Your task to perform on an android device: all mails in gmail Image 0: 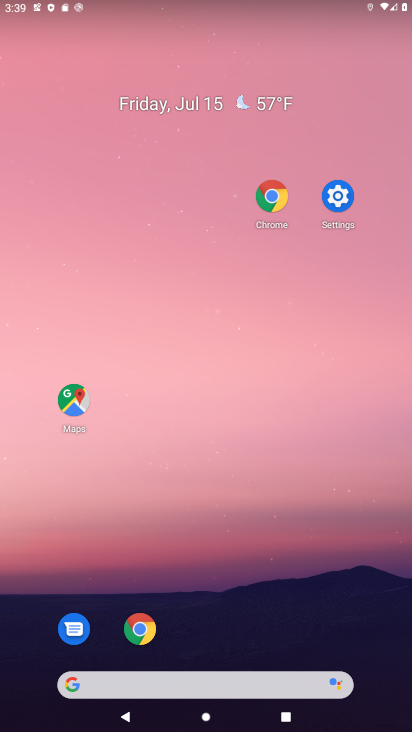
Step 0: drag from (225, 683) to (223, 200)
Your task to perform on an android device: all mails in gmail Image 1: 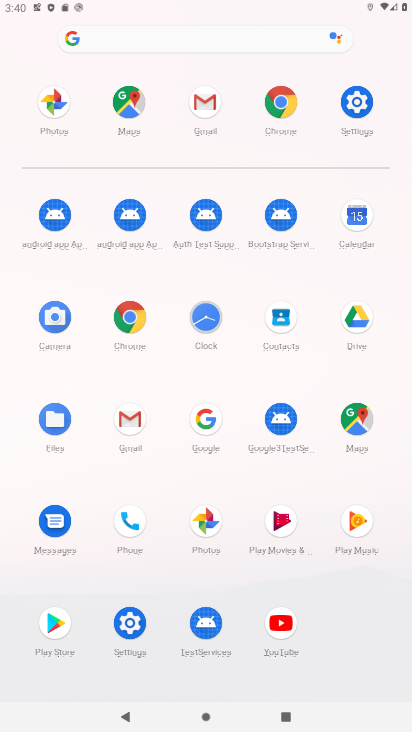
Step 1: click (129, 426)
Your task to perform on an android device: all mails in gmail Image 2: 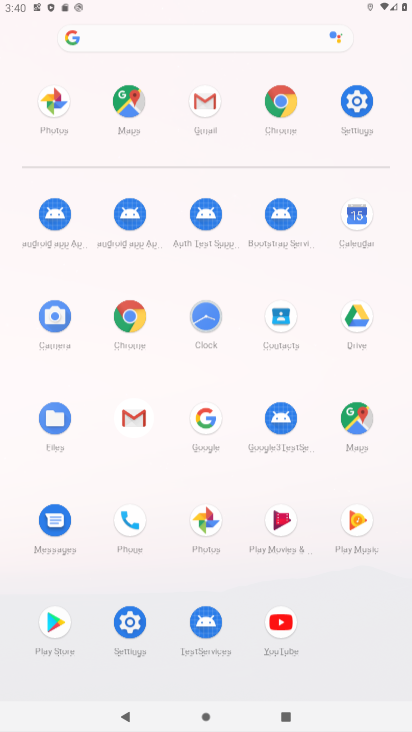
Step 2: click (130, 420)
Your task to perform on an android device: all mails in gmail Image 3: 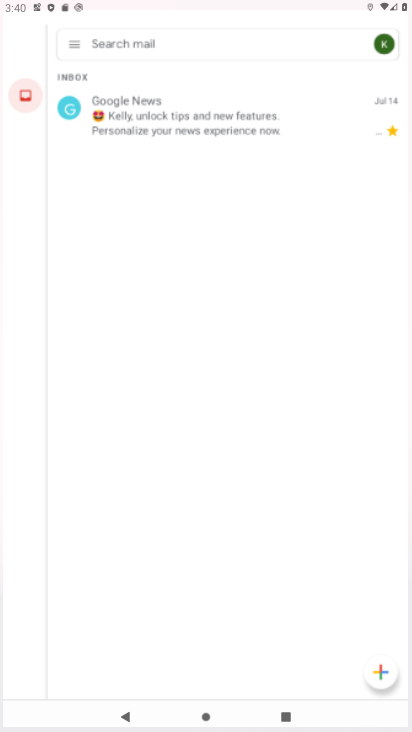
Step 3: click (130, 420)
Your task to perform on an android device: all mails in gmail Image 4: 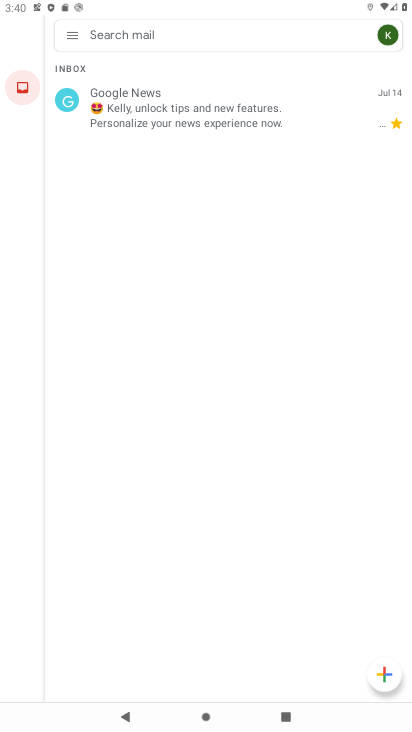
Step 4: click (130, 420)
Your task to perform on an android device: all mails in gmail Image 5: 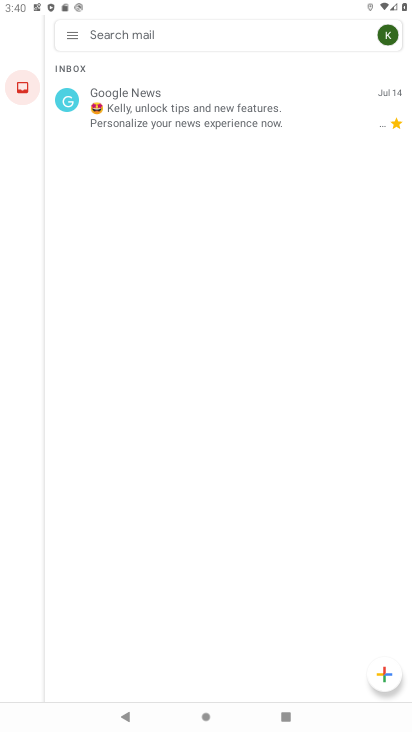
Step 5: task complete